Your task to perform on an android device: Search for "duracell triple a" on costco, select the first entry, add it to the cart, then select checkout. Image 0: 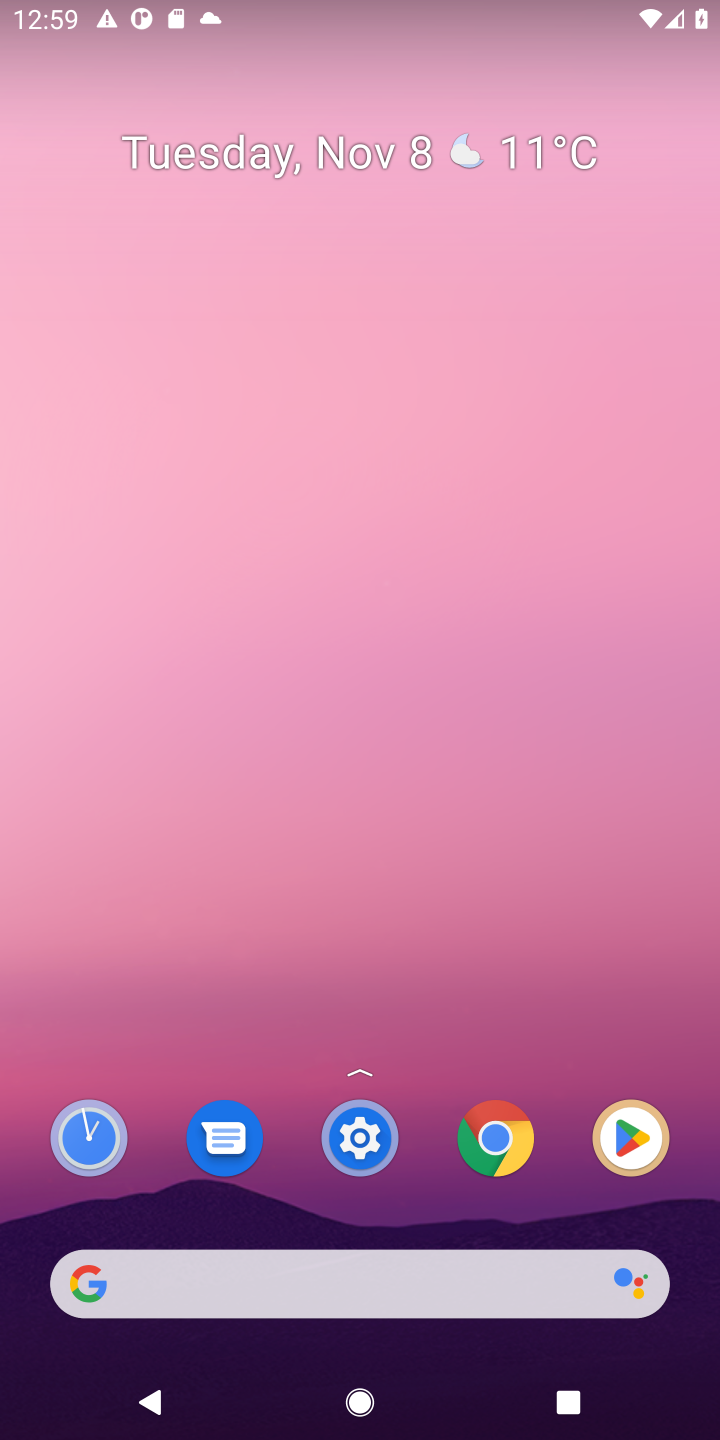
Step 0: click (425, 1296)
Your task to perform on an android device: Search for "duracell triple a" on costco, select the first entry, add it to the cart, then select checkout. Image 1: 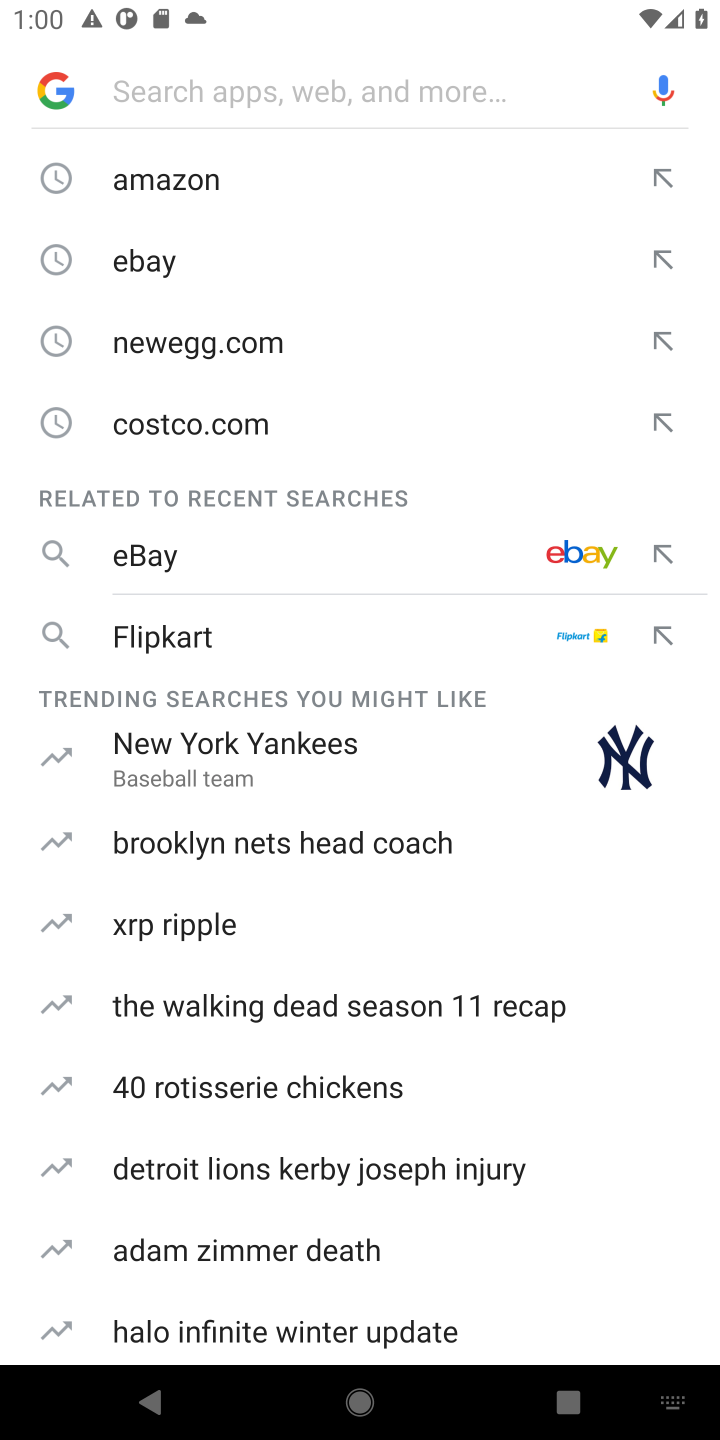
Step 1: click (201, 430)
Your task to perform on an android device: Search for "duracell triple a" on costco, select the first entry, add it to the cart, then select checkout. Image 2: 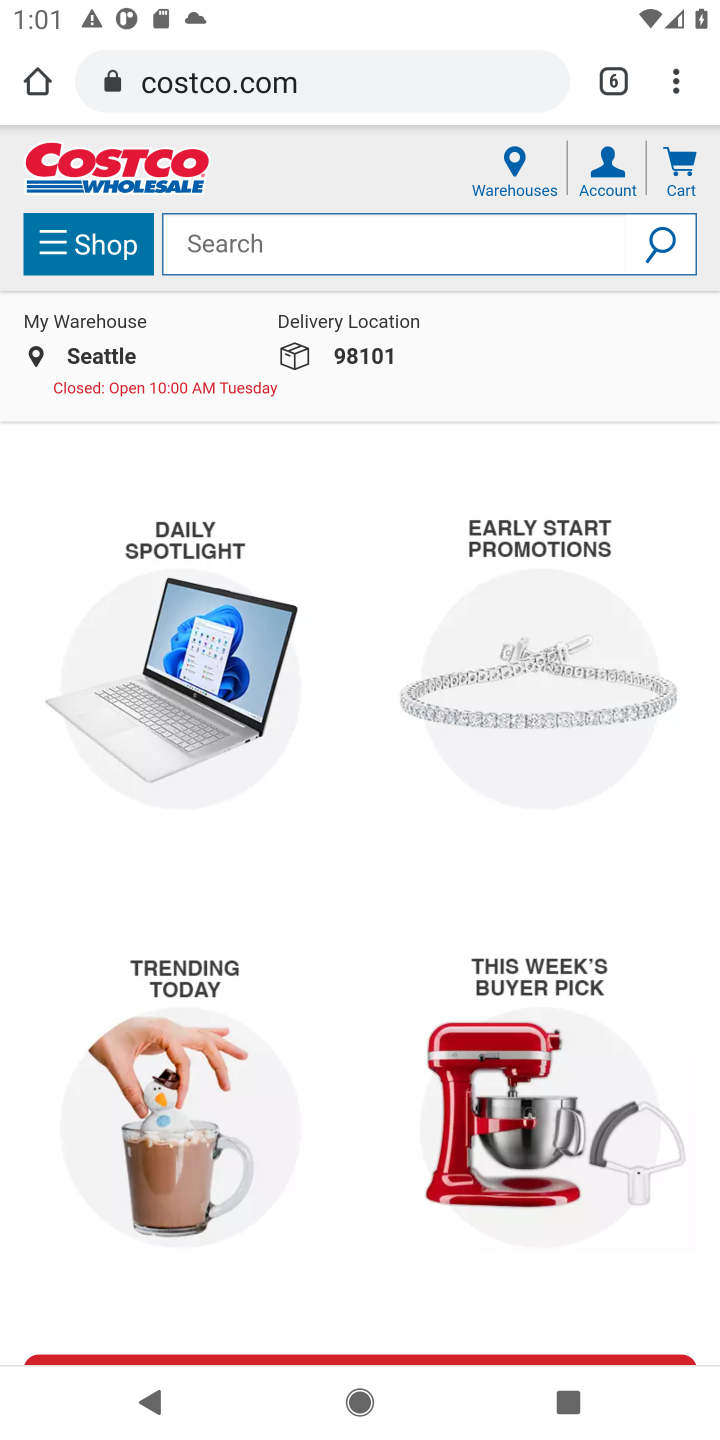
Step 2: task complete